Your task to perform on an android device: Set the phone to "Do not disturb". Image 0: 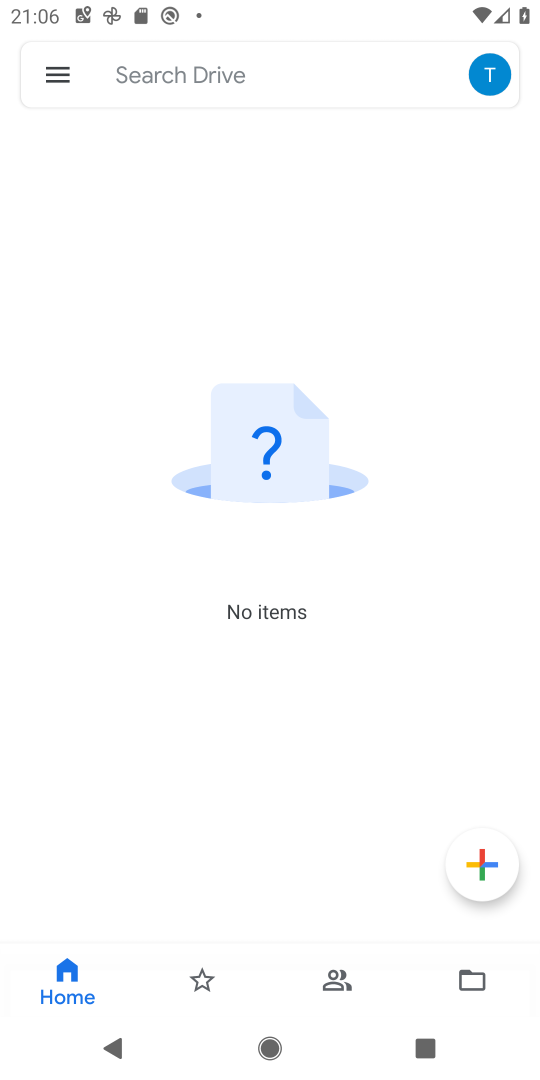
Step 0: press home button
Your task to perform on an android device: Set the phone to "Do not disturb". Image 1: 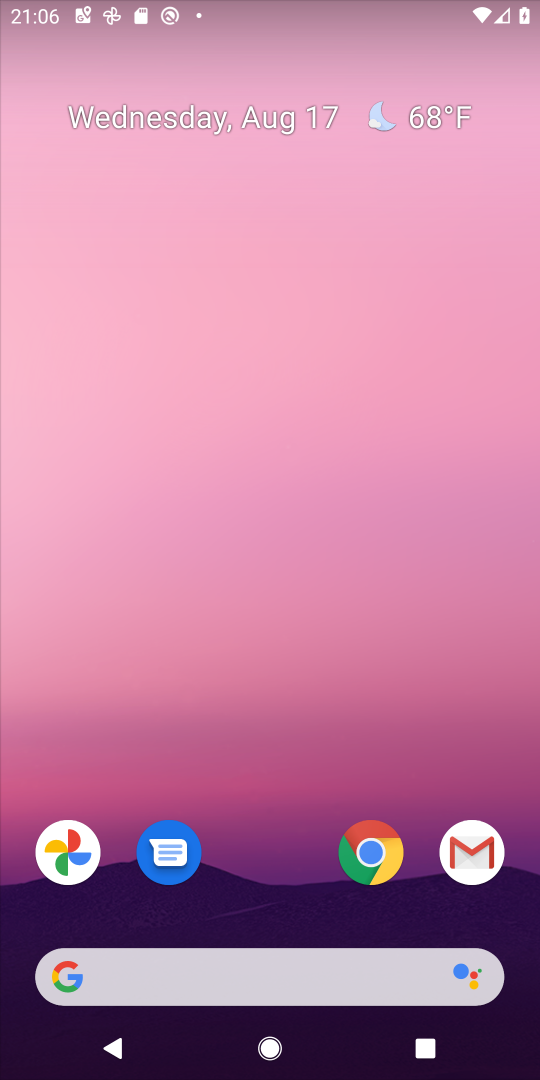
Step 1: drag from (255, 900) to (255, 329)
Your task to perform on an android device: Set the phone to "Do not disturb". Image 2: 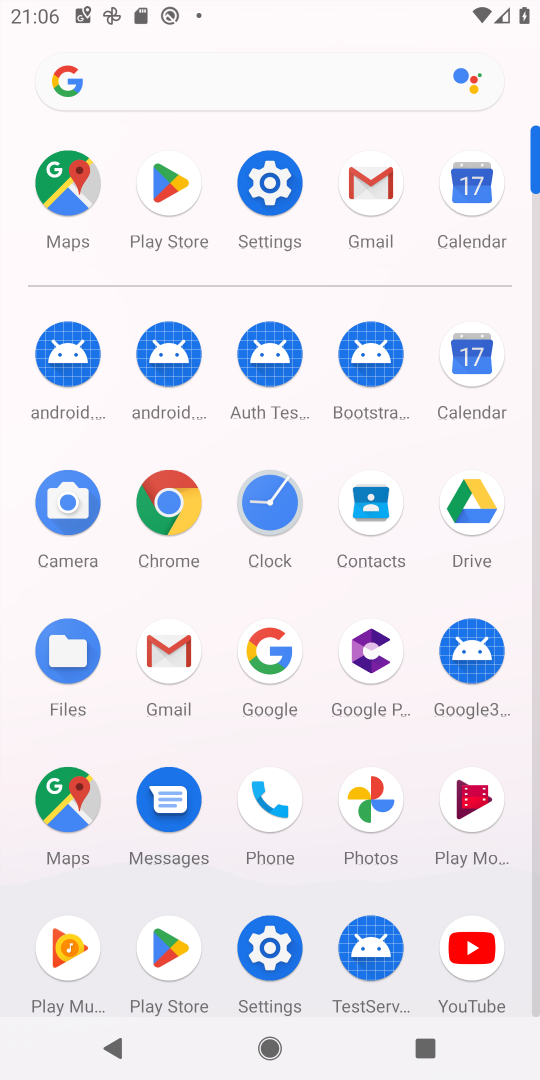
Step 2: click (270, 179)
Your task to perform on an android device: Set the phone to "Do not disturb". Image 3: 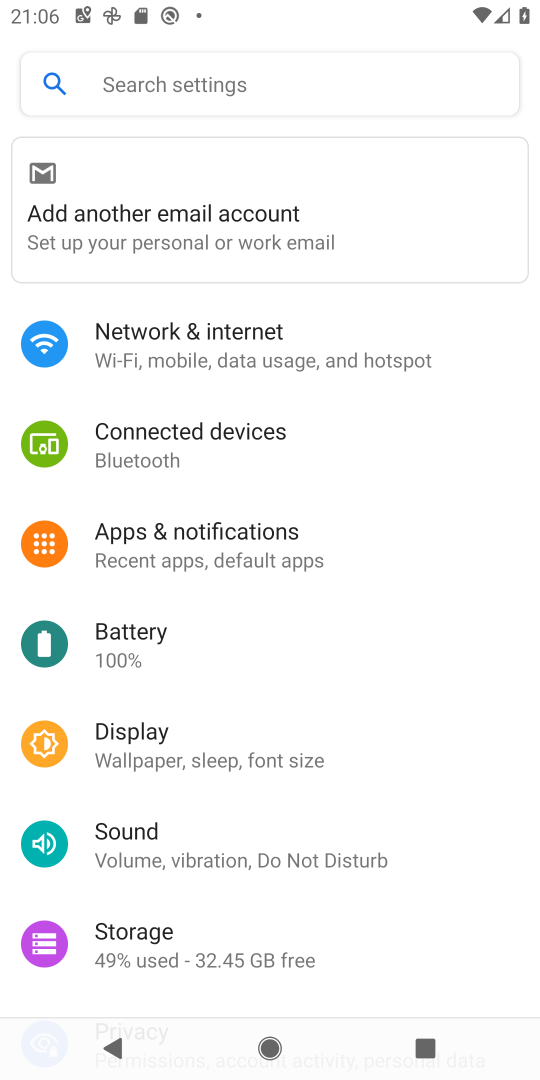
Step 3: click (125, 827)
Your task to perform on an android device: Set the phone to "Do not disturb". Image 4: 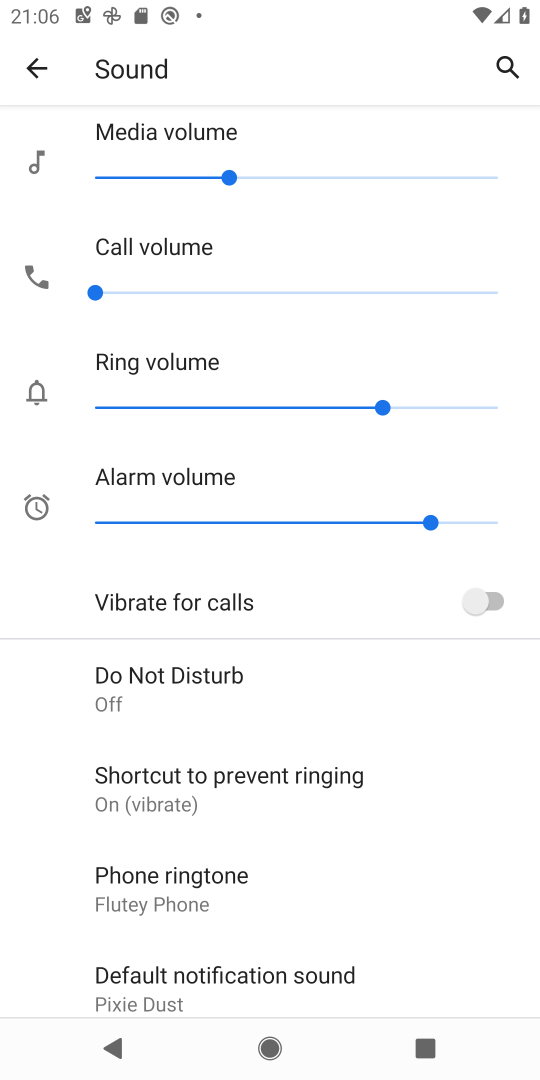
Step 4: click (138, 685)
Your task to perform on an android device: Set the phone to "Do not disturb". Image 5: 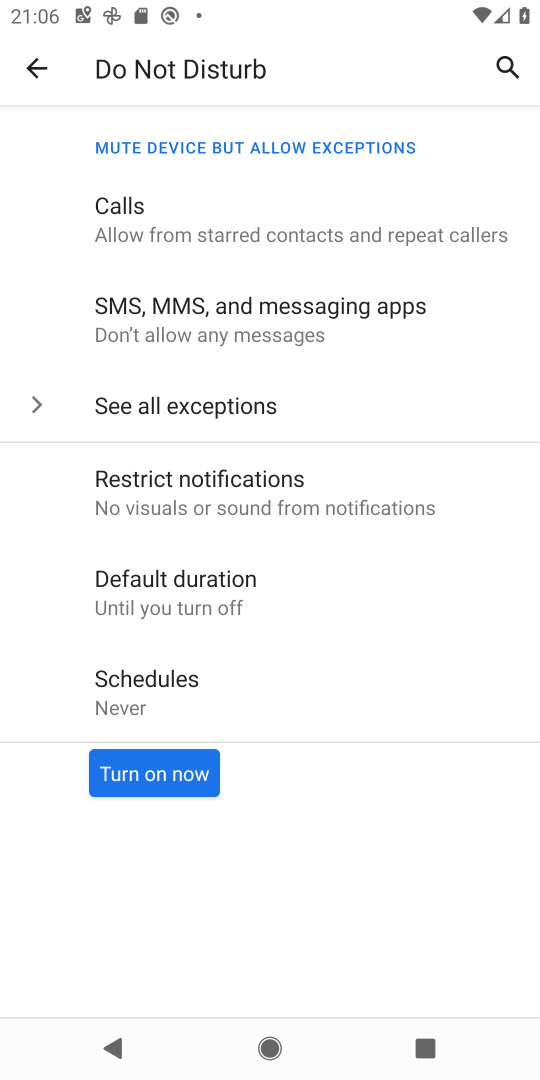
Step 5: click (151, 776)
Your task to perform on an android device: Set the phone to "Do not disturb". Image 6: 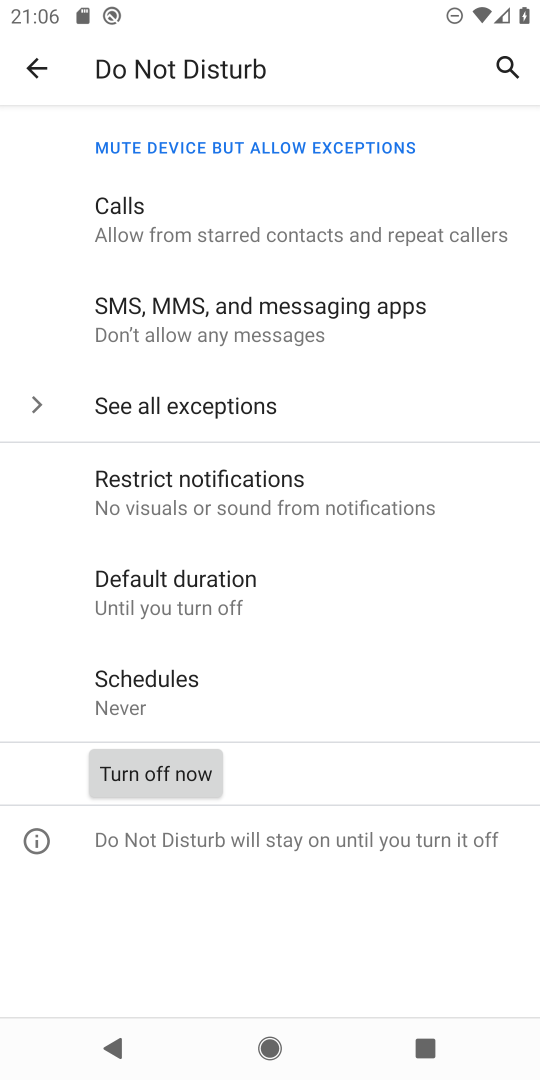
Step 6: task complete